Your task to perform on an android device: turn off airplane mode Image 0: 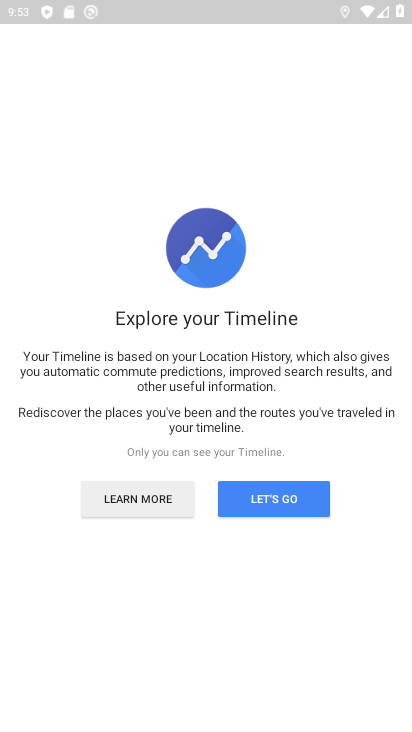
Step 0: press home button
Your task to perform on an android device: turn off airplane mode Image 1: 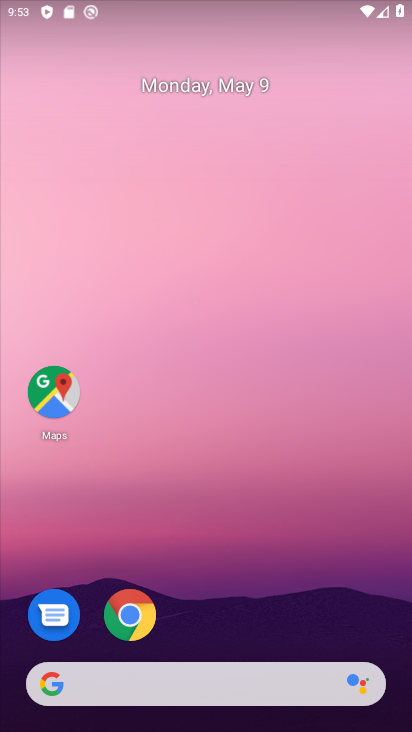
Step 1: drag from (221, 510) to (233, 187)
Your task to perform on an android device: turn off airplane mode Image 2: 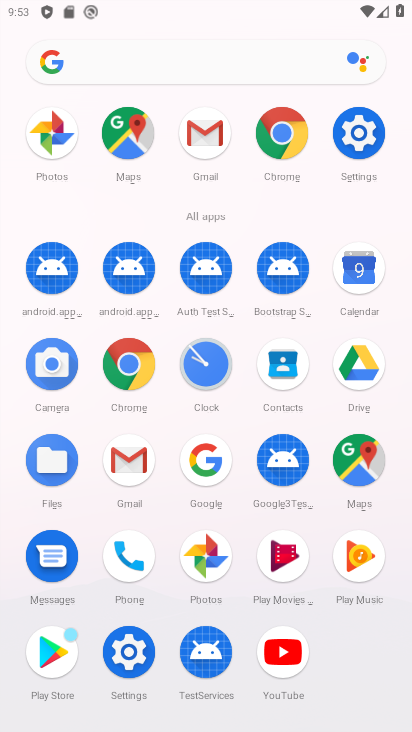
Step 2: click (357, 130)
Your task to perform on an android device: turn off airplane mode Image 3: 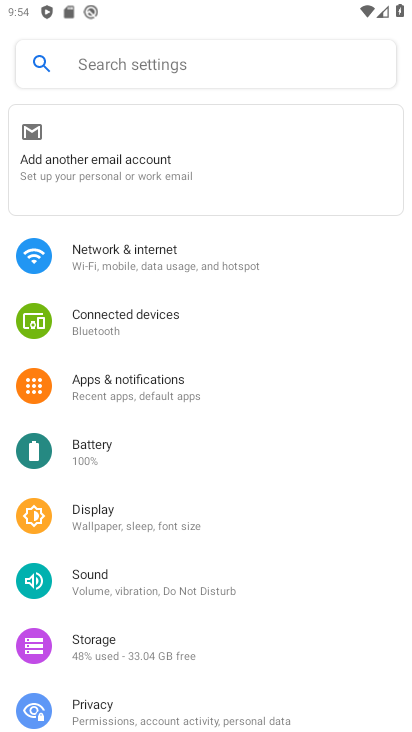
Step 3: click (169, 272)
Your task to perform on an android device: turn off airplane mode Image 4: 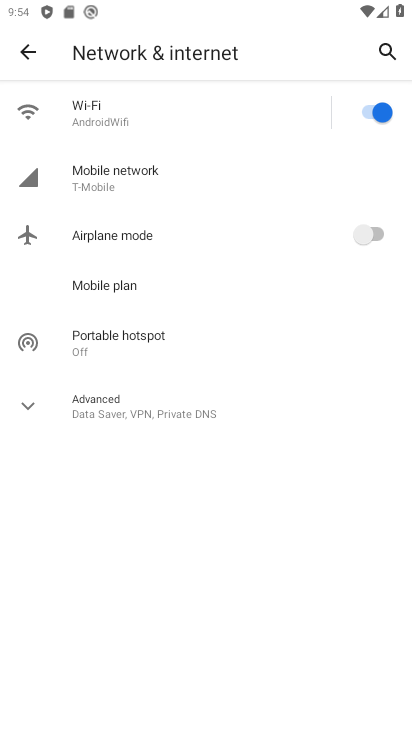
Step 4: task complete